Your task to perform on an android device: Turn off the flashlight Image 0: 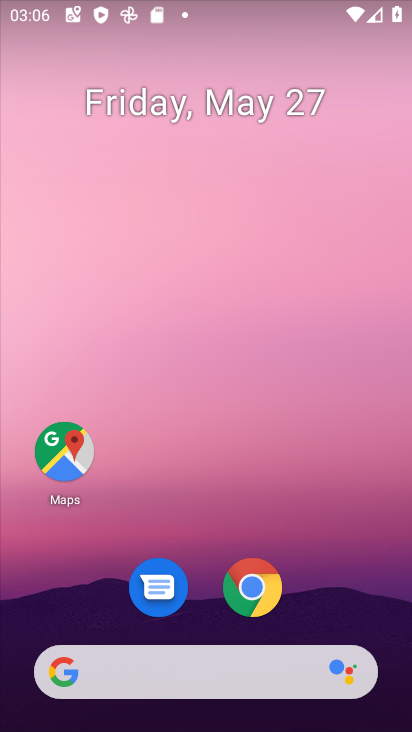
Step 0: drag from (230, 4) to (254, 401)
Your task to perform on an android device: Turn off the flashlight Image 1: 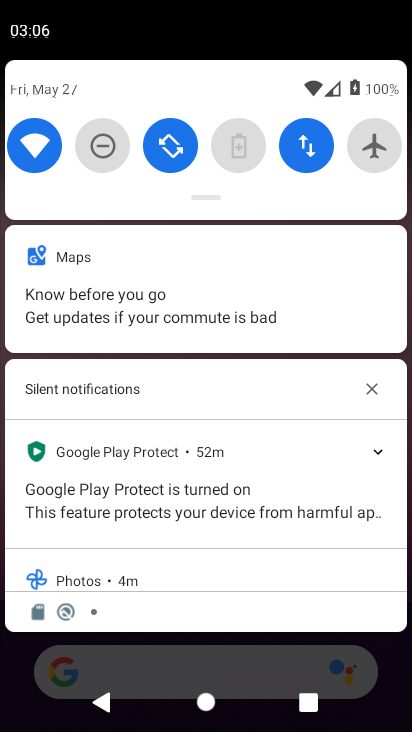
Step 1: task complete